Your task to perform on an android device: toggle notification dots Image 0: 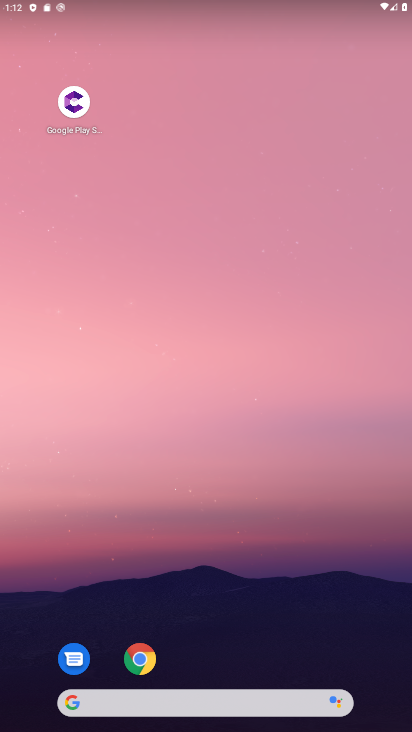
Step 0: drag from (322, 656) to (278, 99)
Your task to perform on an android device: toggle notification dots Image 1: 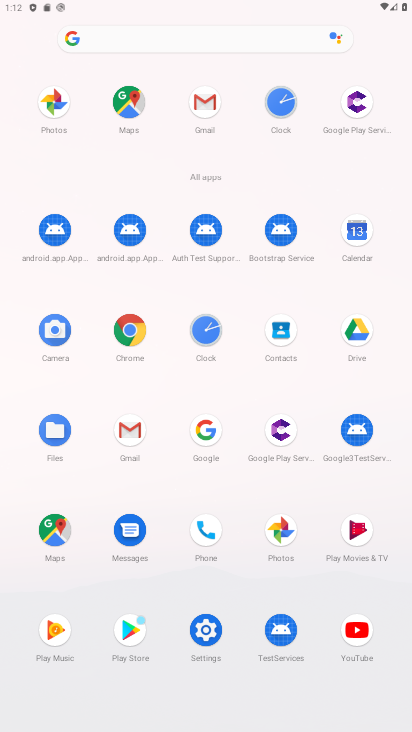
Step 1: click (206, 631)
Your task to perform on an android device: toggle notification dots Image 2: 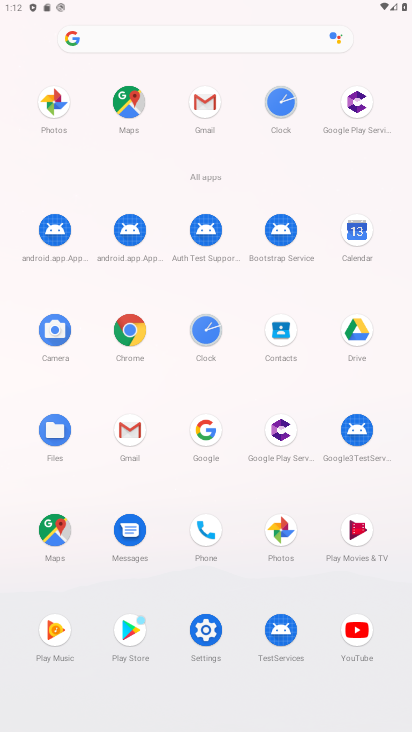
Step 2: click (206, 631)
Your task to perform on an android device: toggle notification dots Image 3: 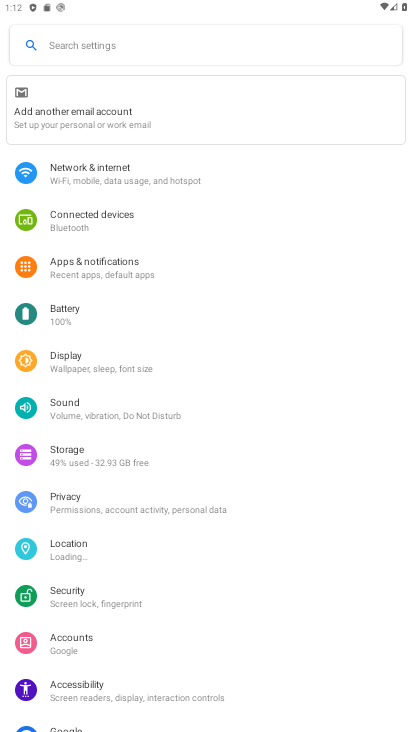
Step 3: click (112, 257)
Your task to perform on an android device: toggle notification dots Image 4: 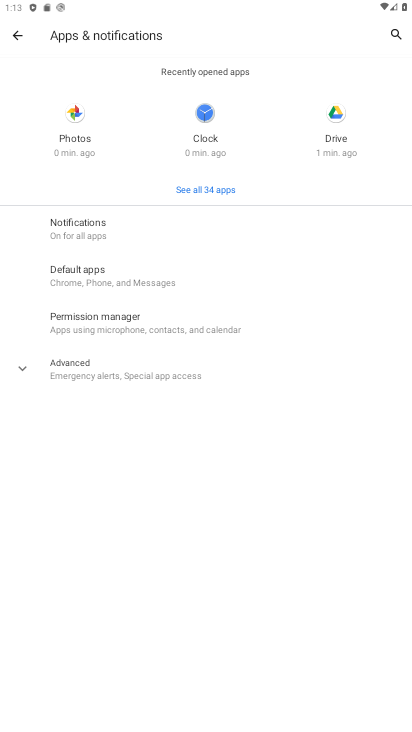
Step 4: click (88, 228)
Your task to perform on an android device: toggle notification dots Image 5: 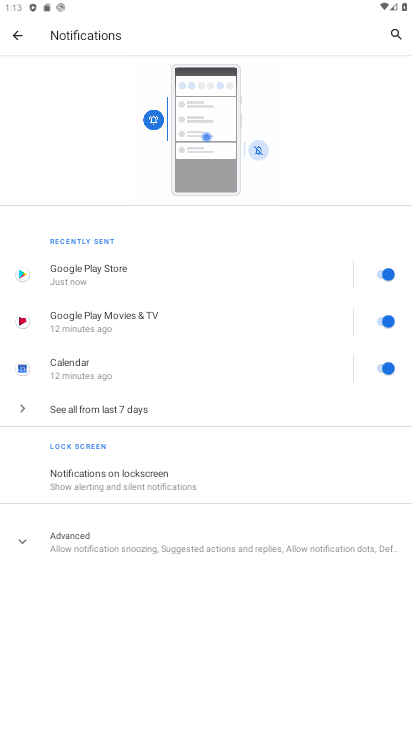
Step 5: click (48, 543)
Your task to perform on an android device: toggle notification dots Image 6: 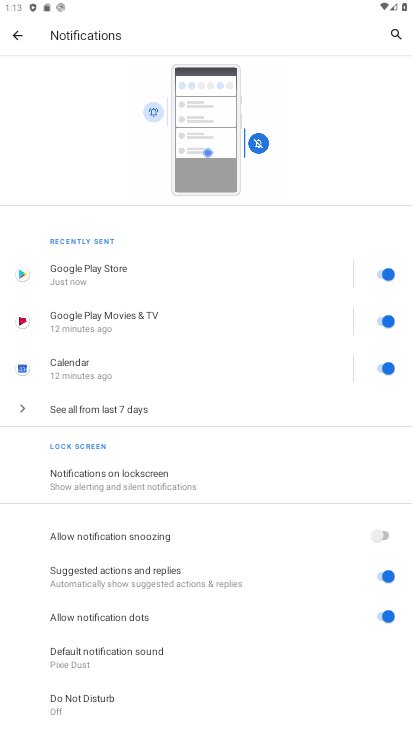
Step 6: click (381, 614)
Your task to perform on an android device: toggle notification dots Image 7: 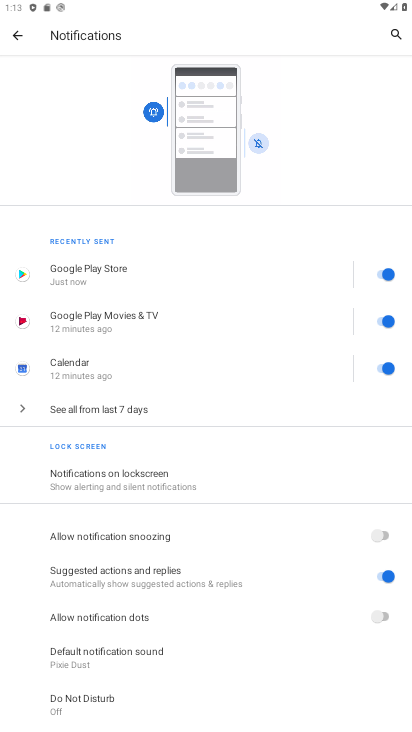
Step 7: task complete